Your task to perform on an android device: Go to Reddit.com Image 0: 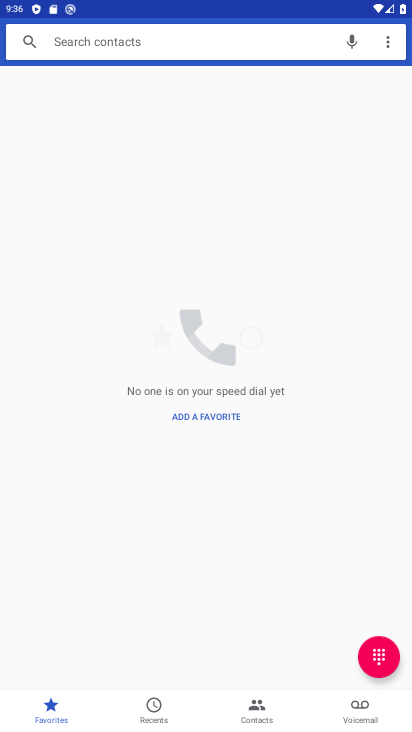
Step 0: press home button
Your task to perform on an android device: Go to Reddit.com Image 1: 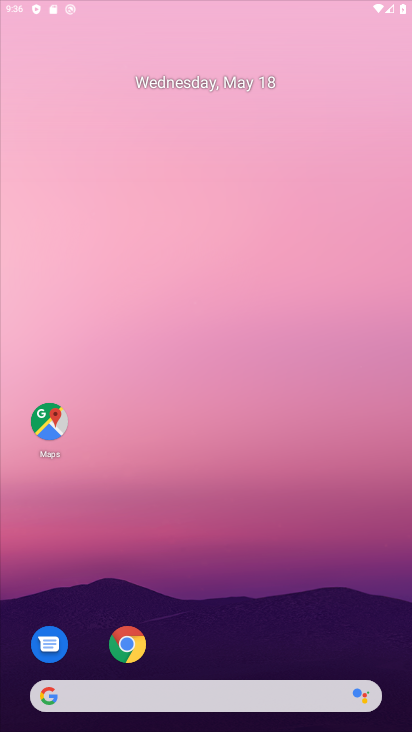
Step 1: drag from (334, 547) to (338, 108)
Your task to perform on an android device: Go to Reddit.com Image 2: 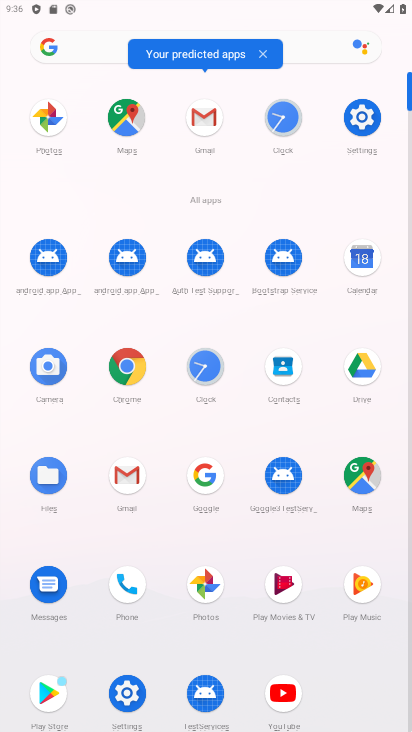
Step 2: click (129, 357)
Your task to perform on an android device: Go to Reddit.com Image 3: 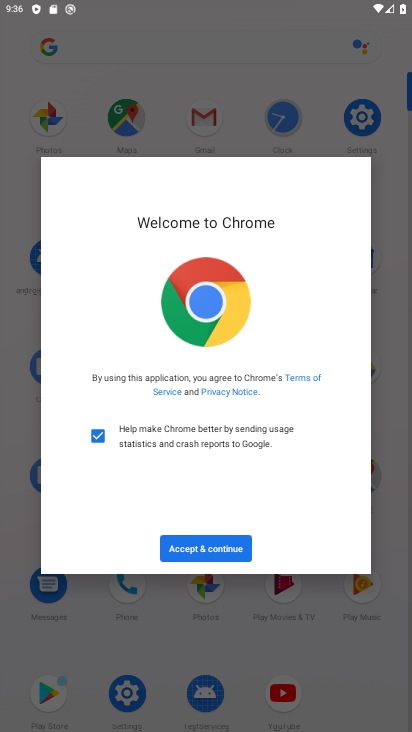
Step 3: click (213, 565)
Your task to perform on an android device: Go to Reddit.com Image 4: 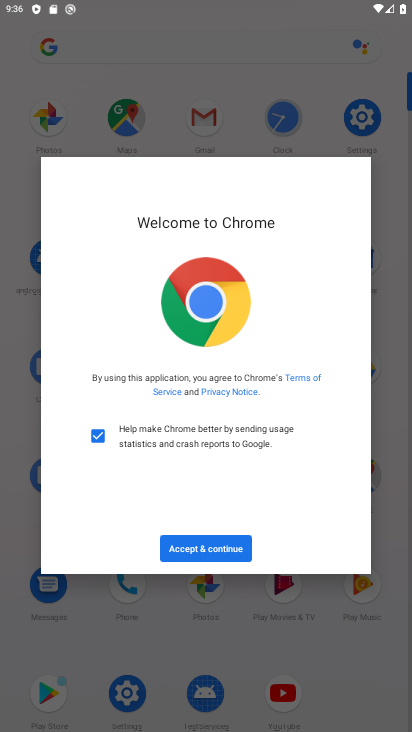
Step 4: click (212, 539)
Your task to perform on an android device: Go to Reddit.com Image 5: 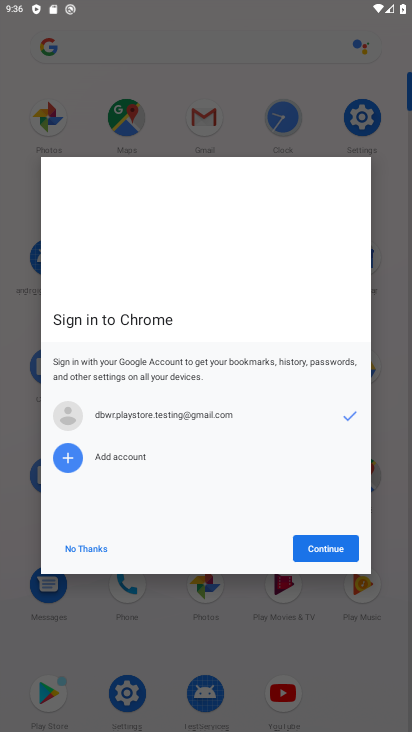
Step 5: click (318, 547)
Your task to perform on an android device: Go to Reddit.com Image 6: 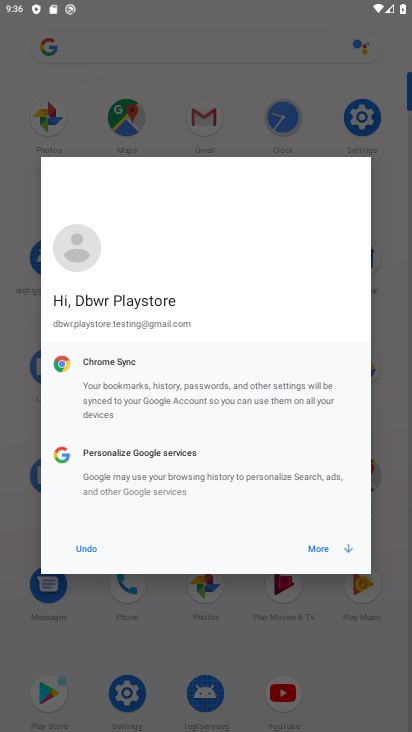
Step 6: click (319, 546)
Your task to perform on an android device: Go to Reddit.com Image 7: 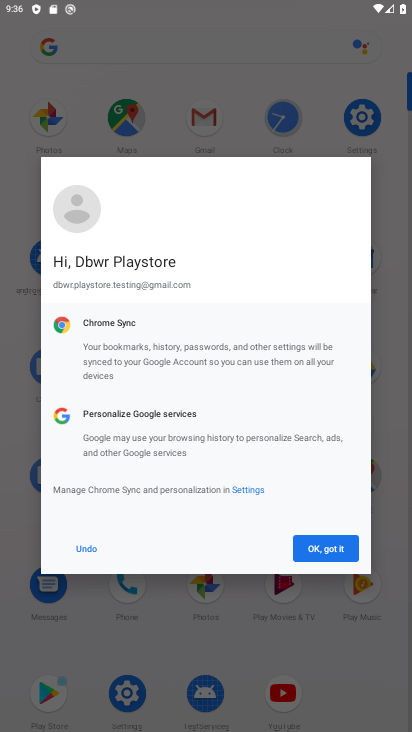
Step 7: click (319, 546)
Your task to perform on an android device: Go to Reddit.com Image 8: 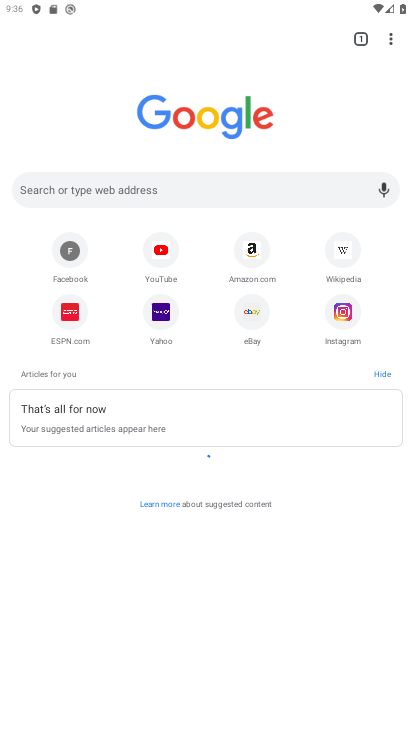
Step 8: click (202, 188)
Your task to perform on an android device: Go to Reddit.com Image 9: 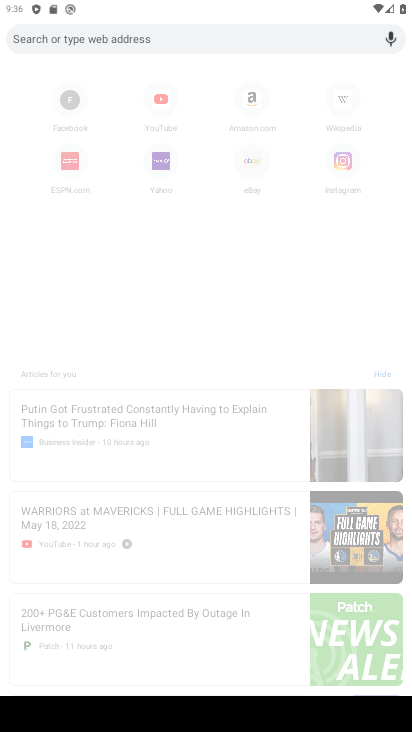
Step 9: type "reddit.com"
Your task to perform on an android device: Go to Reddit.com Image 10: 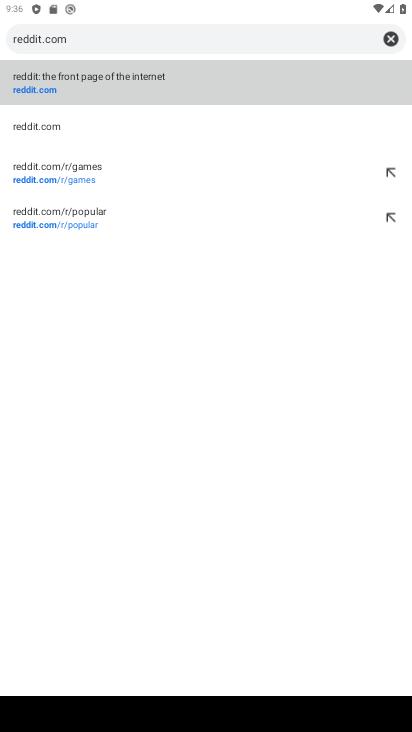
Step 10: click (45, 85)
Your task to perform on an android device: Go to Reddit.com Image 11: 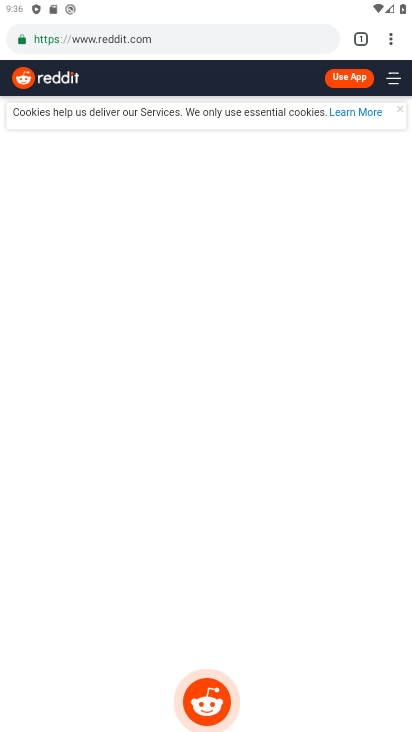
Step 11: task complete